Your task to perform on an android device: See recent photos Image 0: 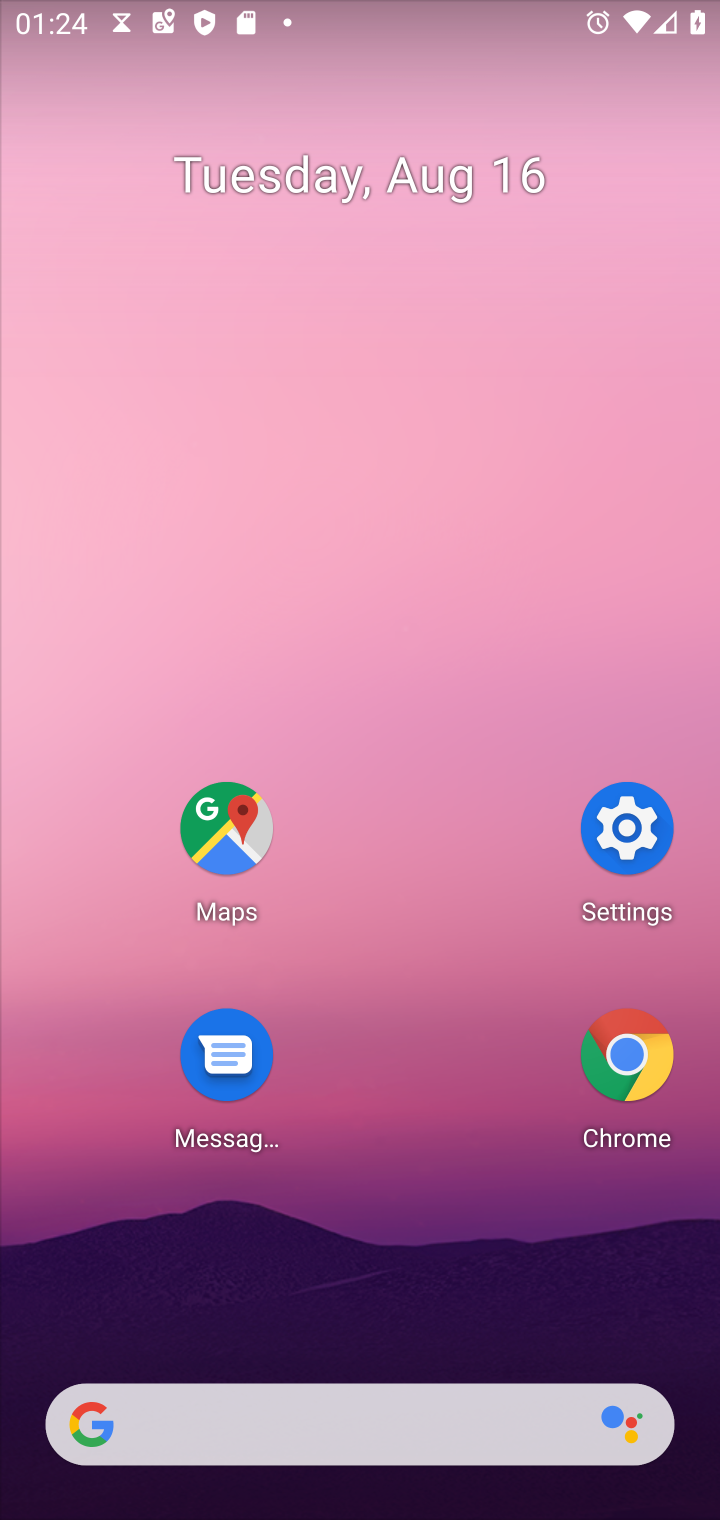
Step 0: press home button
Your task to perform on an android device: See recent photos Image 1: 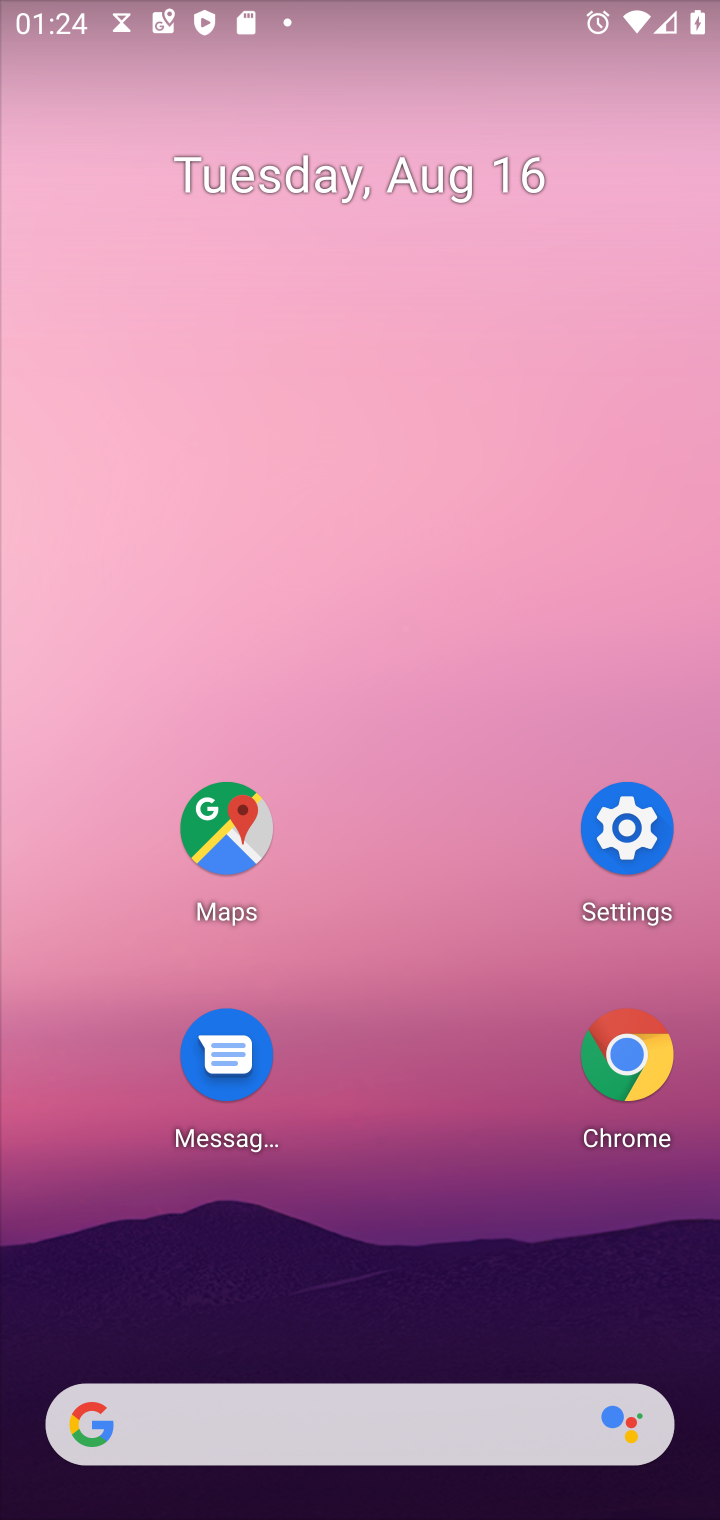
Step 1: drag from (383, 1341) to (612, 117)
Your task to perform on an android device: See recent photos Image 2: 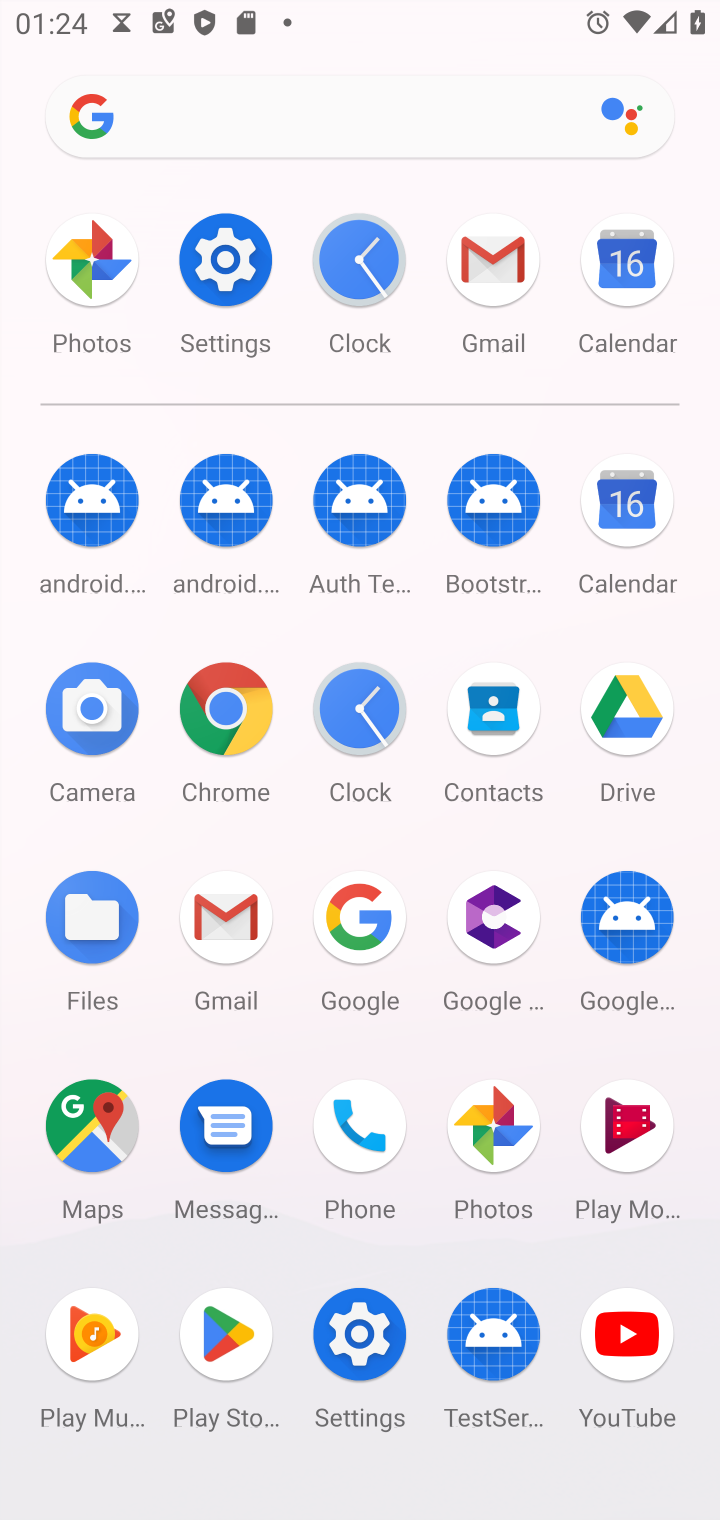
Step 2: click (483, 1137)
Your task to perform on an android device: See recent photos Image 3: 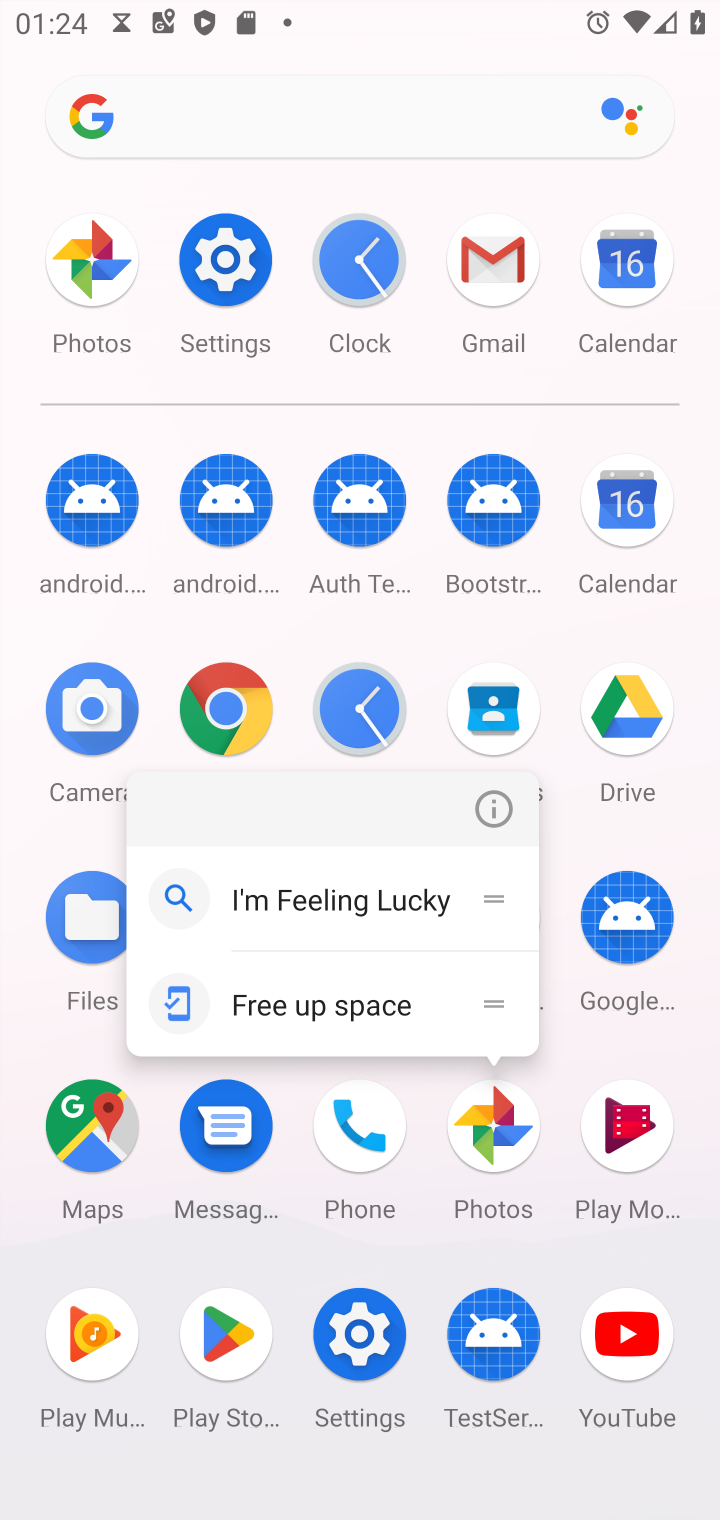
Step 3: click (488, 1128)
Your task to perform on an android device: See recent photos Image 4: 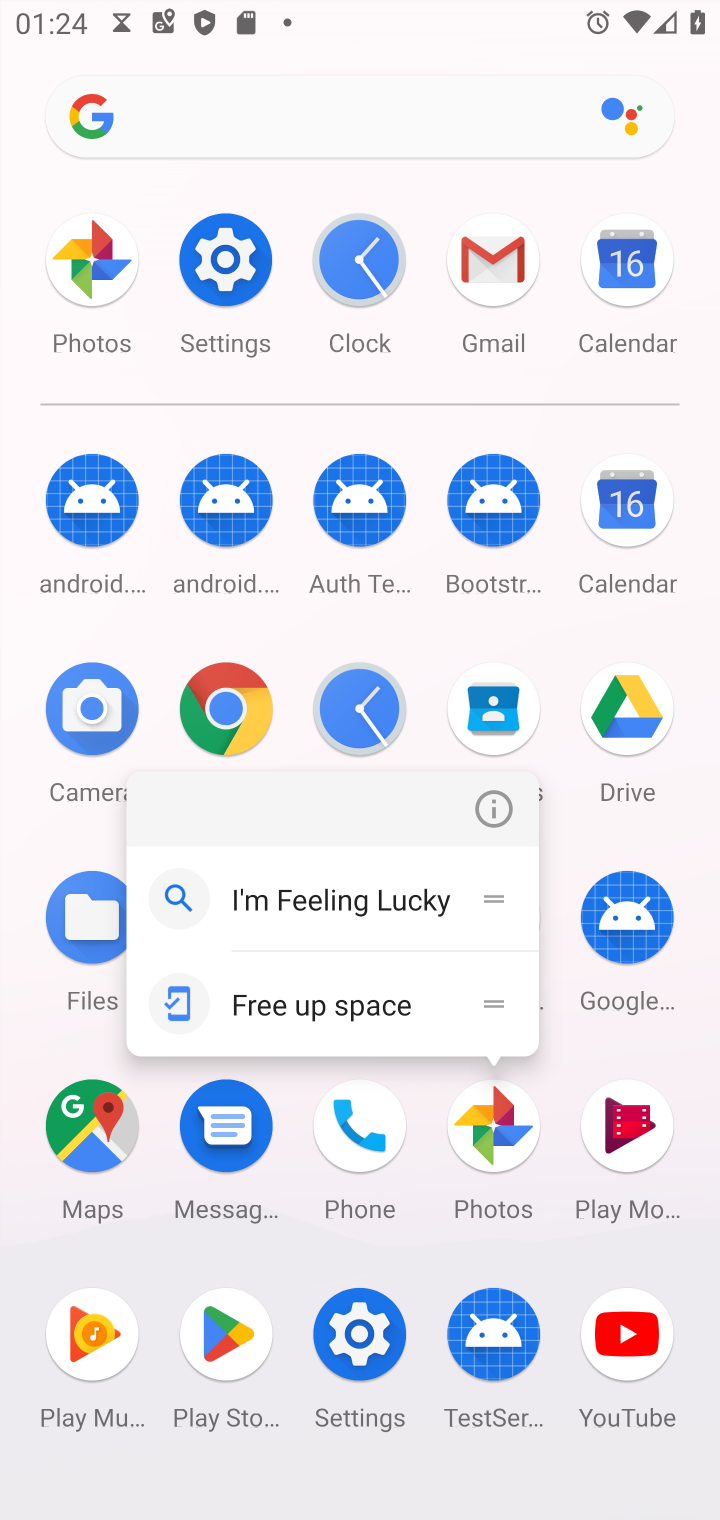
Step 4: click (488, 1128)
Your task to perform on an android device: See recent photos Image 5: 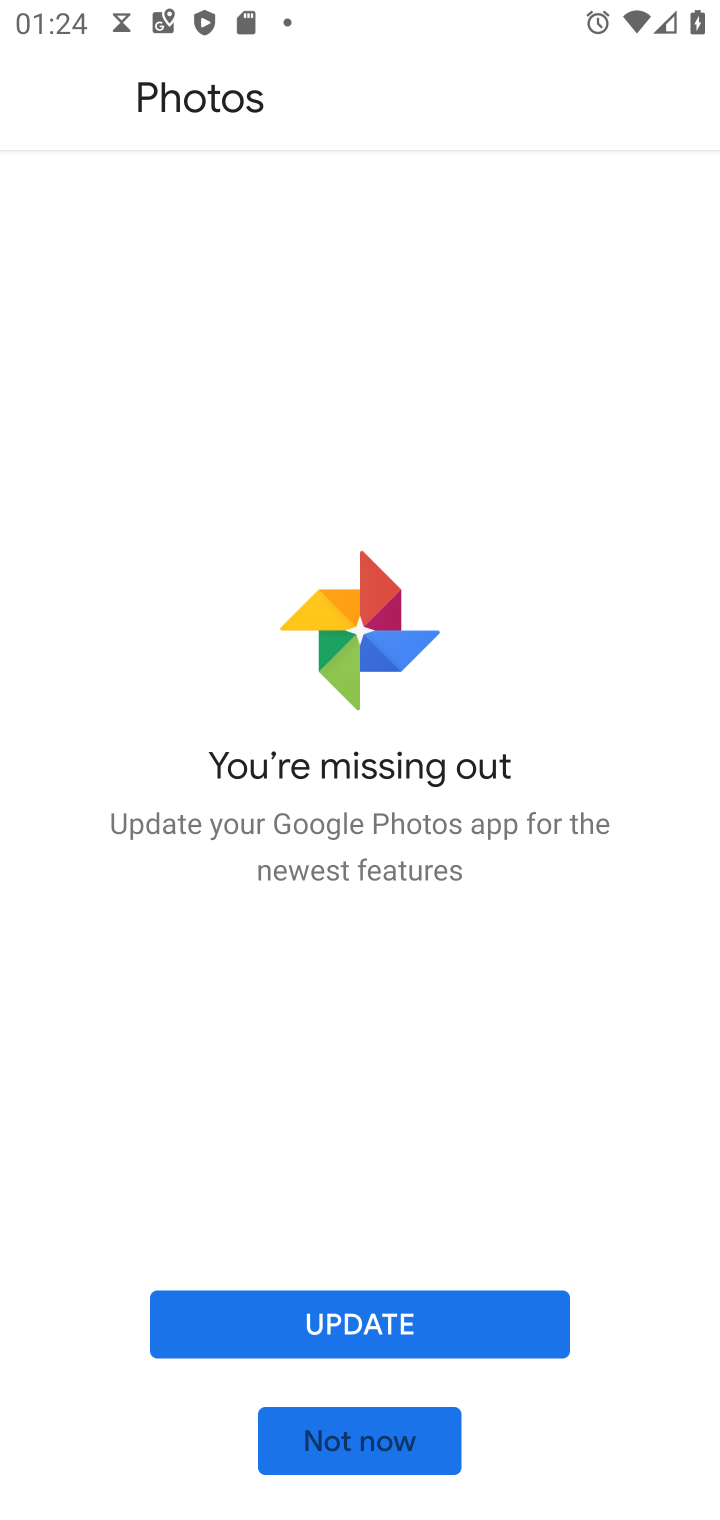
Step 5: click (388, 1350)
Your task to perform on an android device: See recent photos Image 6: 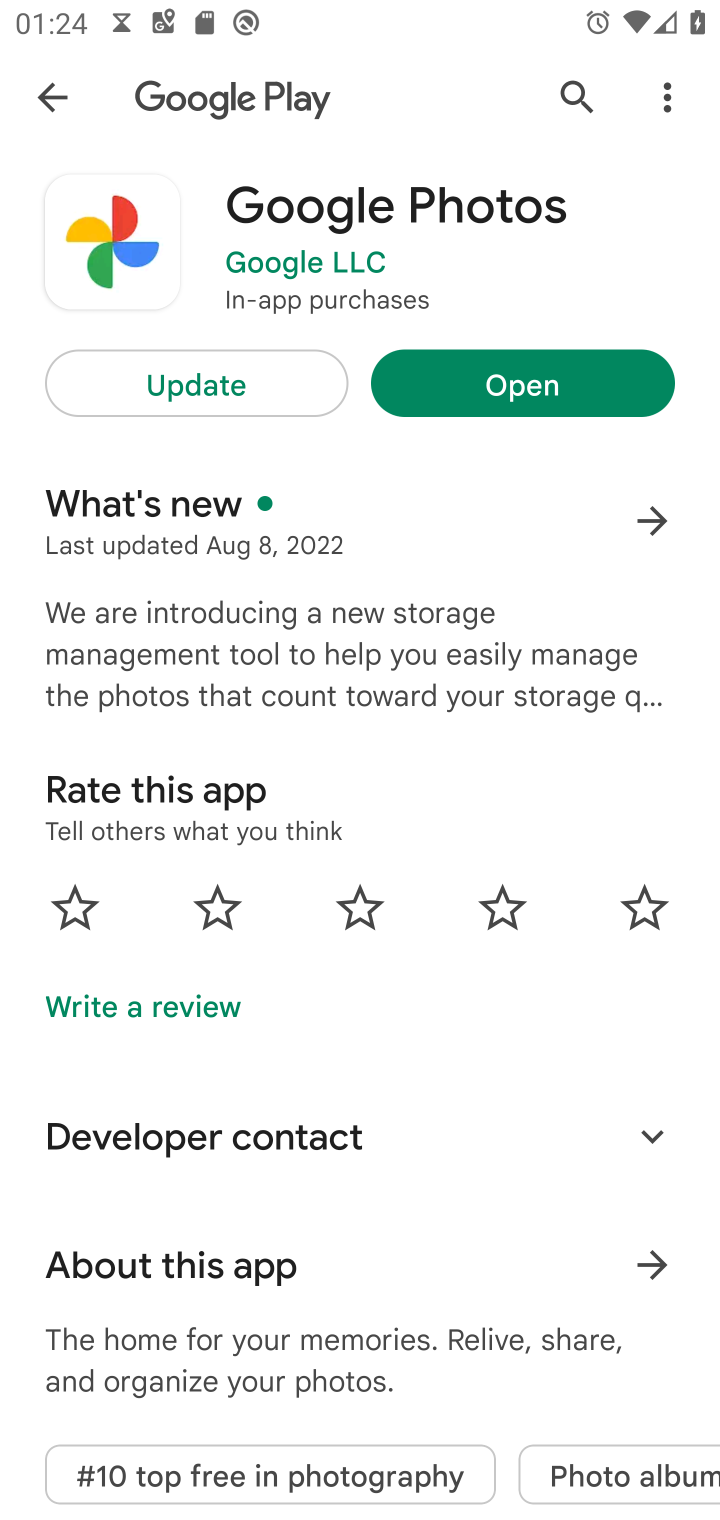
Step 6: click (265, 389)
Your task to perform on an android device: See recent photos Image 7: 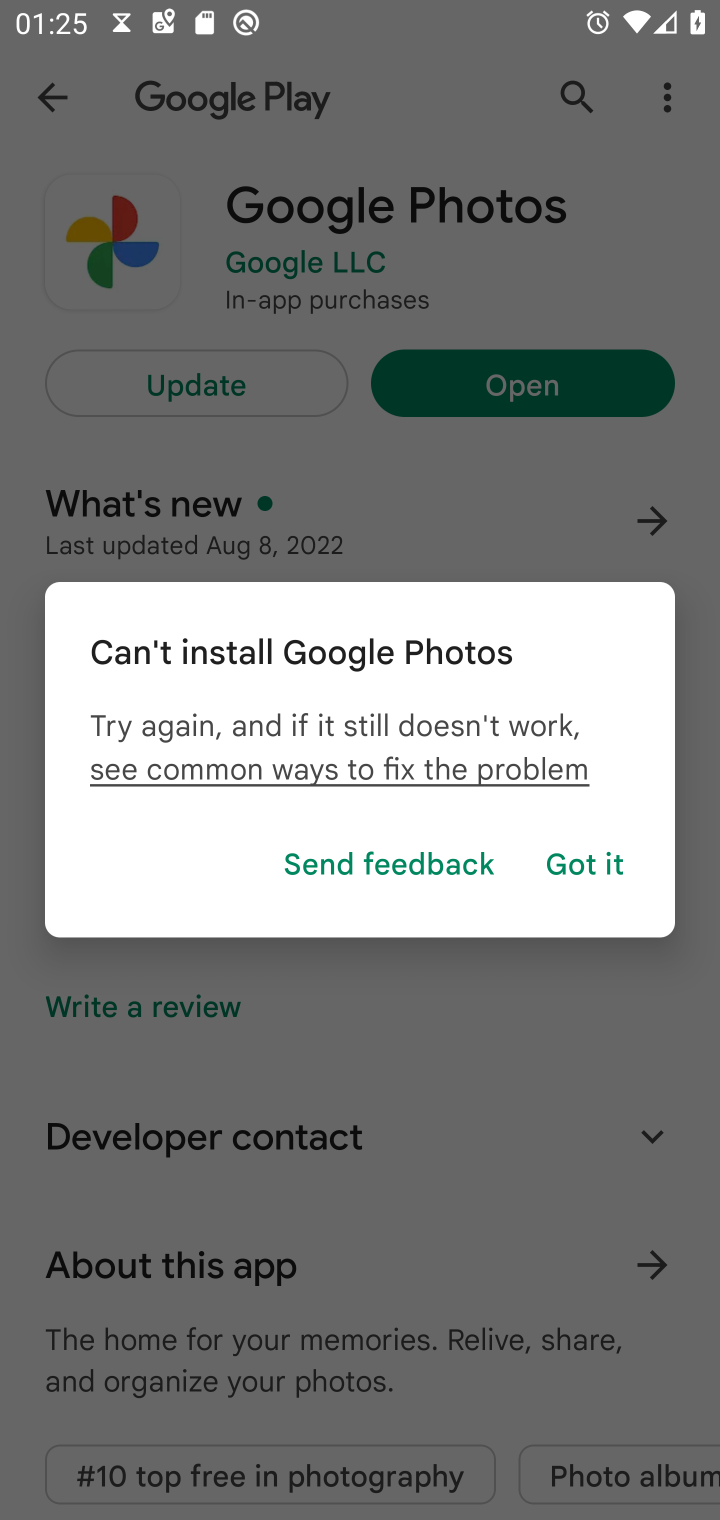
Step 7: task complete